Your task to perform on an android device: Search for "acer nitro" on ebay.com, select the first entry, add it to the cart, then select checkout. Image 0: 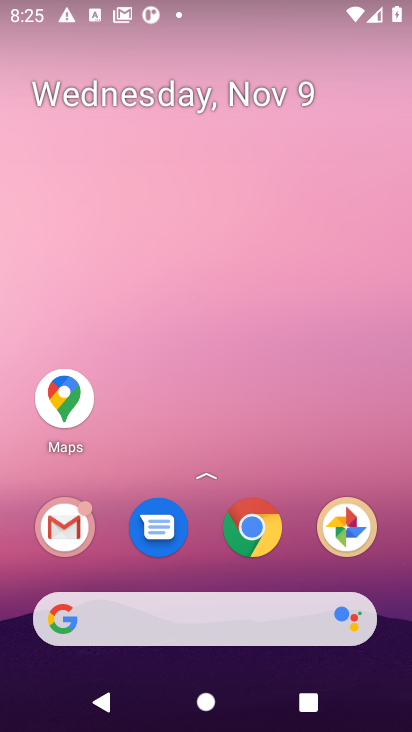
Step 0: click (255, 520)
Your task to perform on an android device: Search for "acer nitro" on ebay.com, select the first entry, add it to the cart, then select checkout. Image 1: 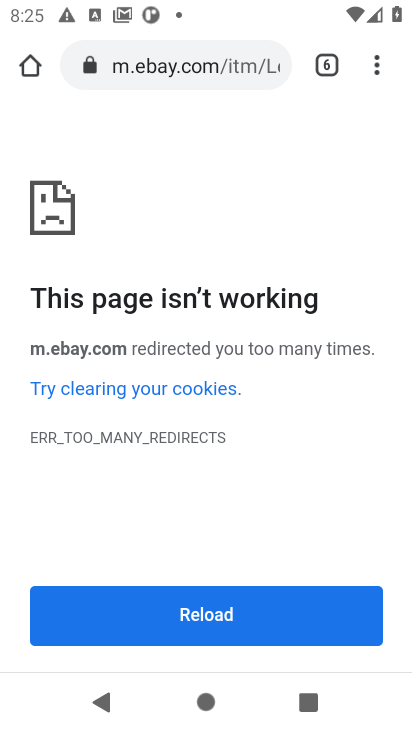
Step 1: click (180, 63)
Your task to perform on an android device: Search for "acer nitro" on ebay.com, select the first entry, add it to the cart, then select checkout. Image 2: 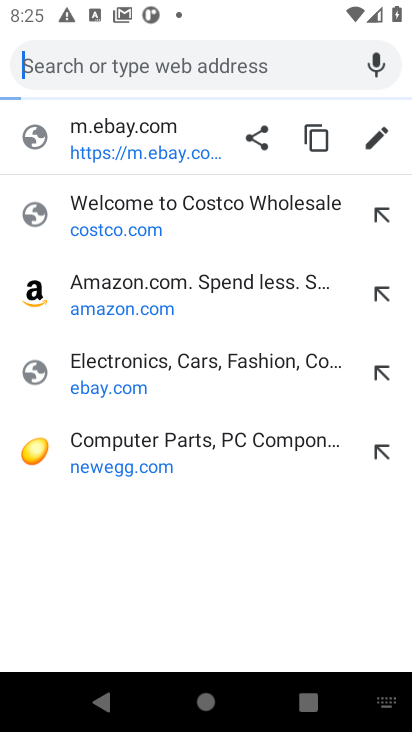
Step 2: click (94, 365)
Your task to perform on an android device: Search for "acer nitro" on ebay.com, select the first entry, add it to the cart, then select checkout. Image 3: 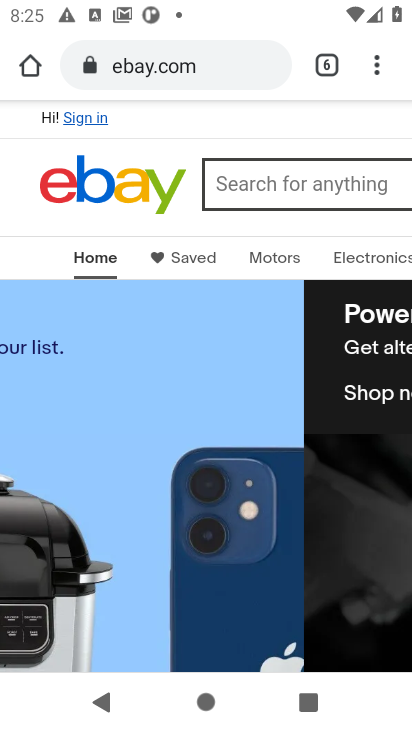
Step 3: click (274, 191)
Your task to perform on an android device: Search for "acer nitro" on ebay.com, select the first entry, add it to the cart, then select checkout. Image 4: 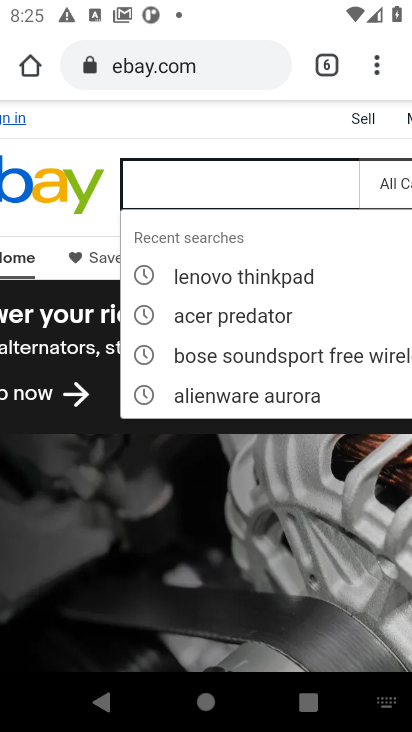
Step 4: type "acer nitro"
Your task to perform on an android device: Search for "acer nitro" on ebay.com, select the first entry, add it to the cart, then select checkout. Image 5: 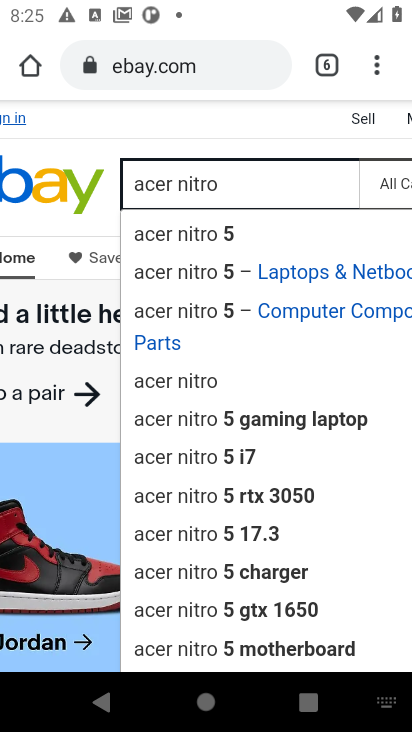
Step 5: click (191, 391)
Your task to perform on an android device: Search for "acer nitro" on ebay.com, select the first entry, add it to the cart, then select checkout. Image 6: 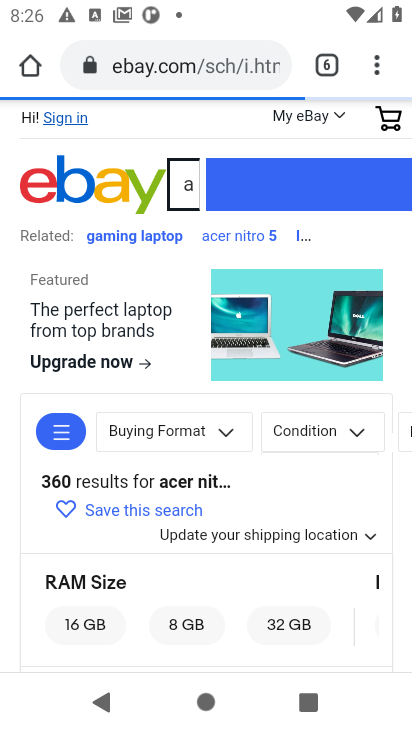
Step 6: drag from (176, 552) to (178, 232)
Your task to perform on an android device: Search for "acer nitro" on ebay.com, select the first entry, add it to the cart, then select checkout. Image 7: 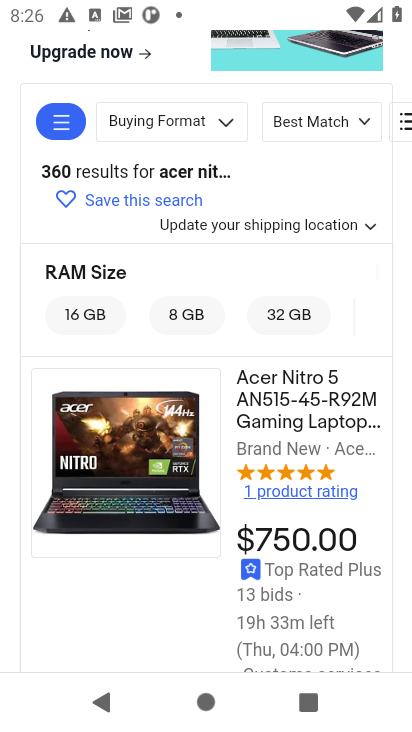
Step 7: click (129, 453)
Your task to perform on an android device: Search for "acer nitro" on ebay.com, select the first entry, add it to the cart, then select checkout. Image 8: 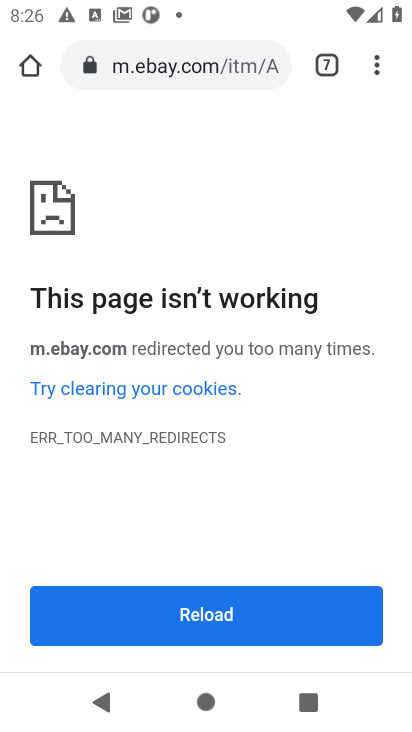
Step 8: task complete